Your task to perform on an android device: toggle data saver in the chrome app Image 0: 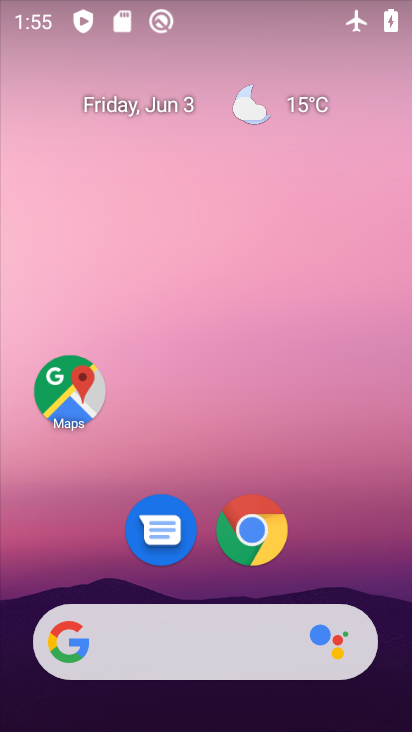
Step 0: drag from (198, 563) to (248, 150)
Your task to perform on an android device: toggle data saver in the chrome app Image 1: 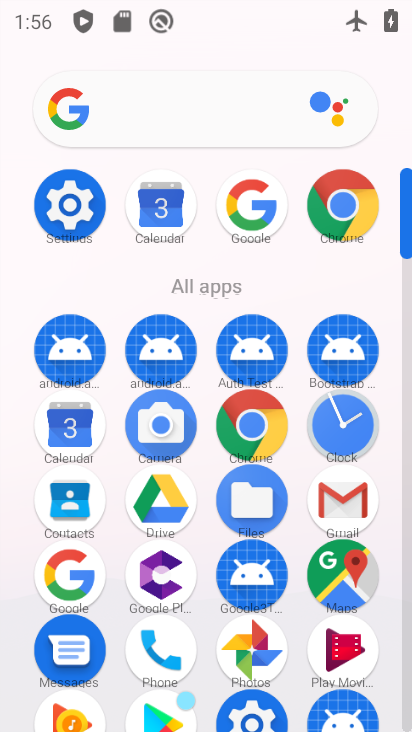
Step 1: click (328, 213)
Your task to perform on an android device: toggle data saver in the chrome app Image 2: 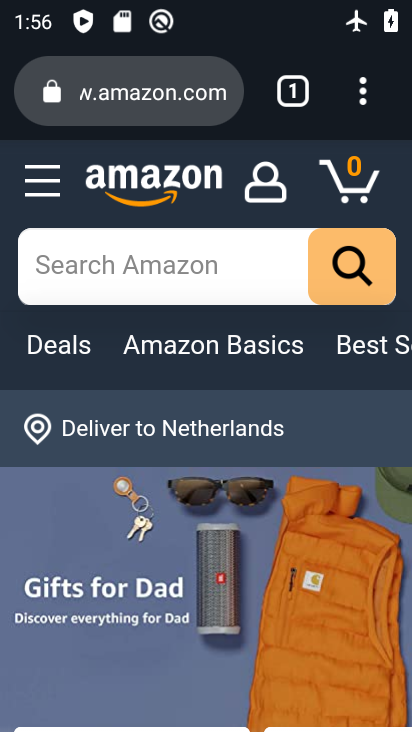
Step 2: click (357, 103)
Your task to perform on an android device: toggle data saver in the chrome app Image 3: 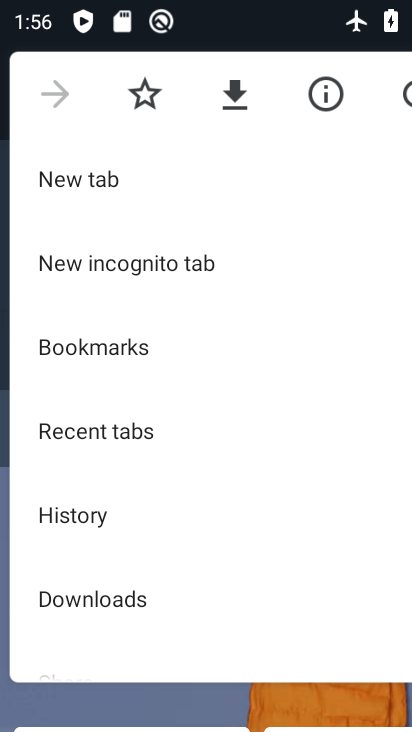
Step 3: drag from (234, 530) to (186, 270)
Your task to perform on an android device: toggle data saver in the chrome app Image 4: 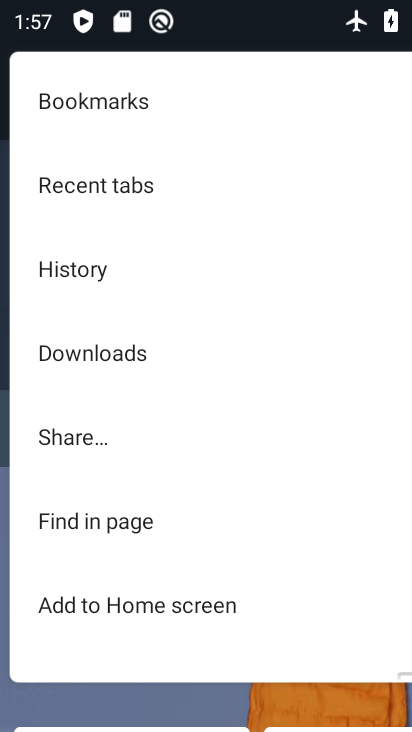
Step 4: drag from (331, 152) to (312, 591)
Your task to perform on an android device: toggle data saver in the chrome app Image 5: 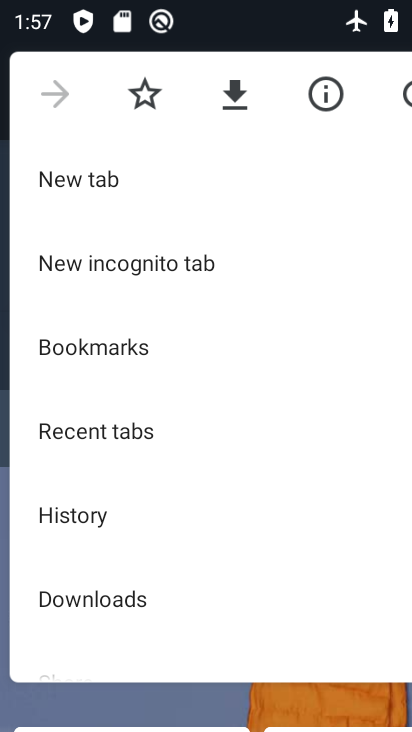
Step 5: press back button
Your task to perform on an android device: toggle data saver in the chrome app Image 6: 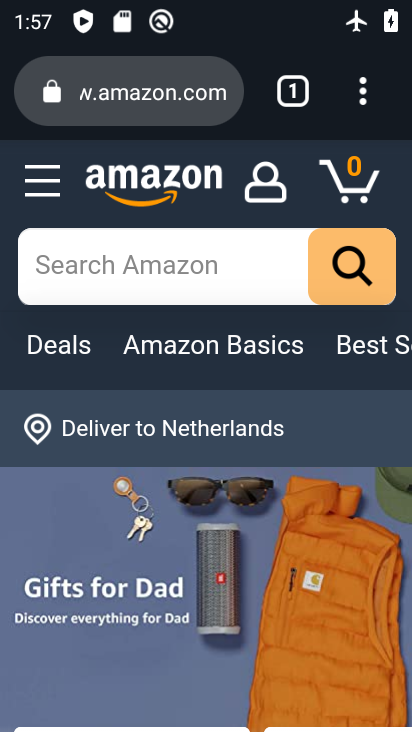
Step 6: click (365, 101)
Your task to perform on an android device: toggle data saver in the chrome app Image 7: 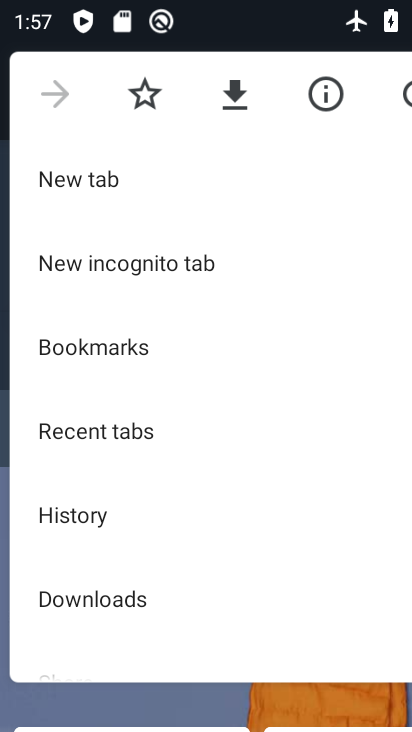
Step 7: drag from (131, 599) to (170, 362)
Your task to perform on an android device: toggle data saver in the chrome app Image 8: 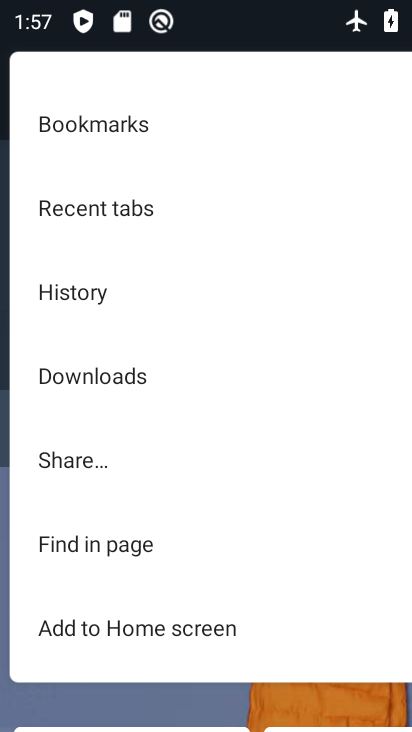
Step 8: drag from (162, 553) to (171, 335)
Your task to perform on an android device: toggle data saver in the chrome app Image 9: 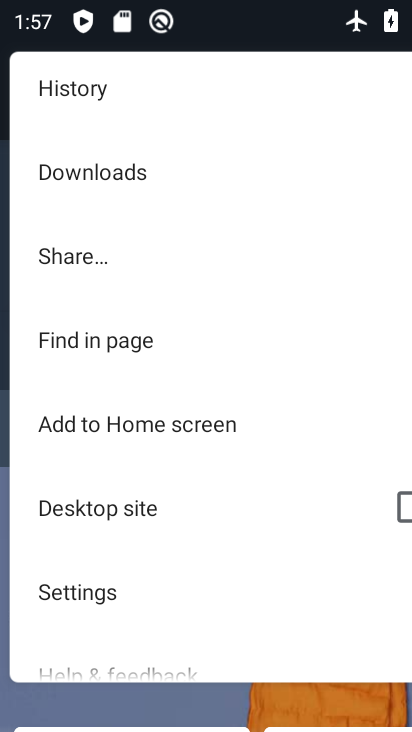
Step 9: click (72, 590)
Your task to perform on an android device: toggle data saver in the chrome app Image 10: 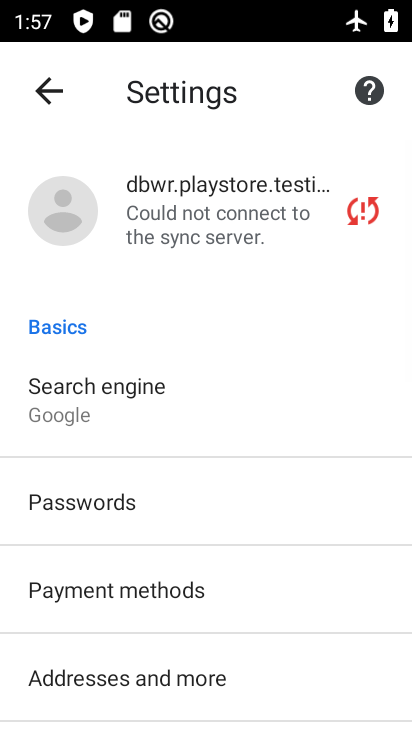
Step 10: drag from (107, 637) to (156, 152)
Your task to perform on an android device: toggle data saver in the chrome app Image 11: 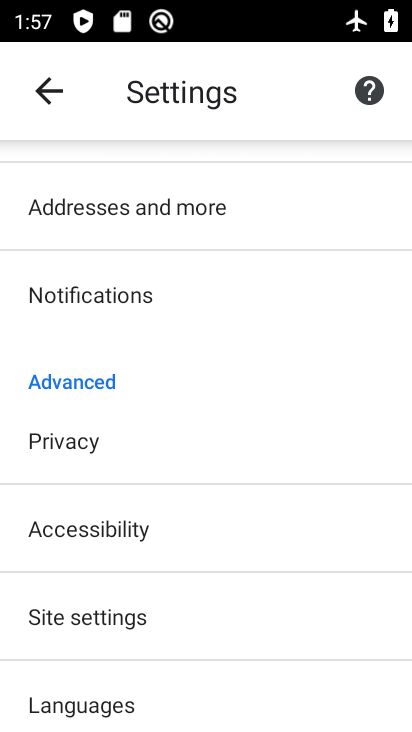
Step 11: drag from (99, 685) to (115, 497)
Your task to perform on an android device: toggle data saver in the chrome app Image 12: 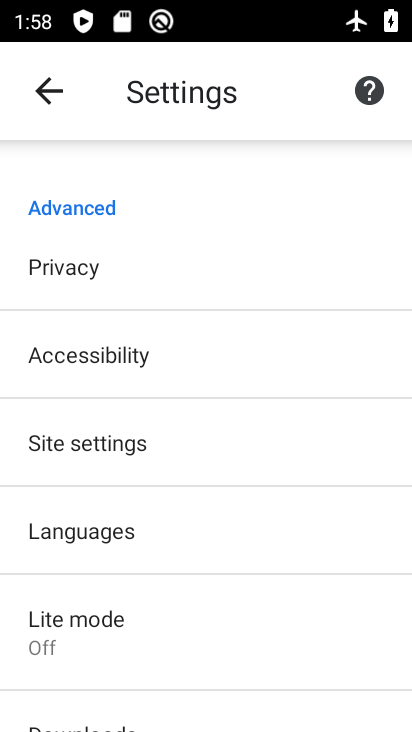
Step 12: click (98, 648)
Your task to perform on an android device: toggle data saver in the chrome app Image 13: 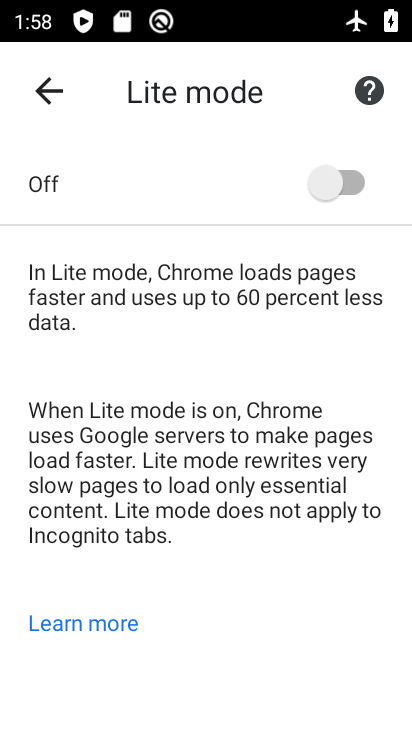
Step 13: click (346, 192)
Your task to perform on an android device: toggle data saver in the chrome app Image 14: 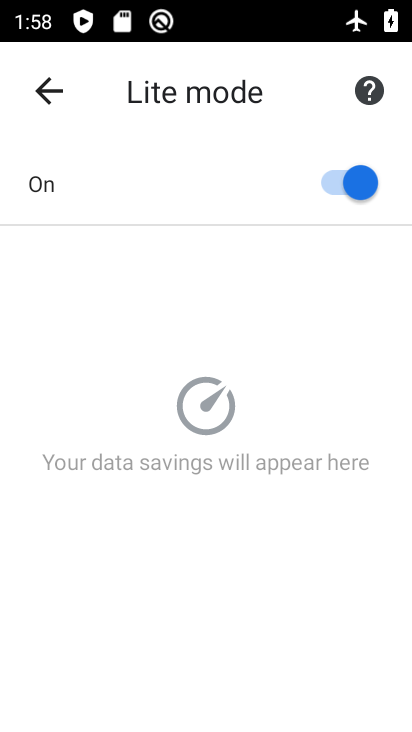
Step 14: task complete